Your task to perform on an android device: Is it going to rain tomorrow? Image 0: 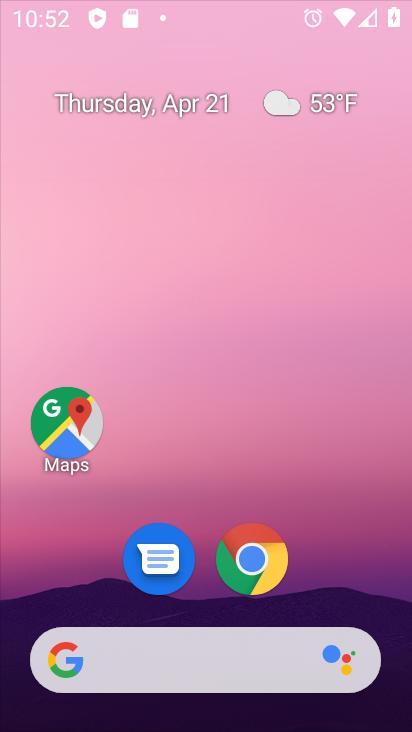
Step 0: drag from (261, 689) to (204, 112)
Your task to perform on an android device: Is it going to rain tomorrow? Image 1: 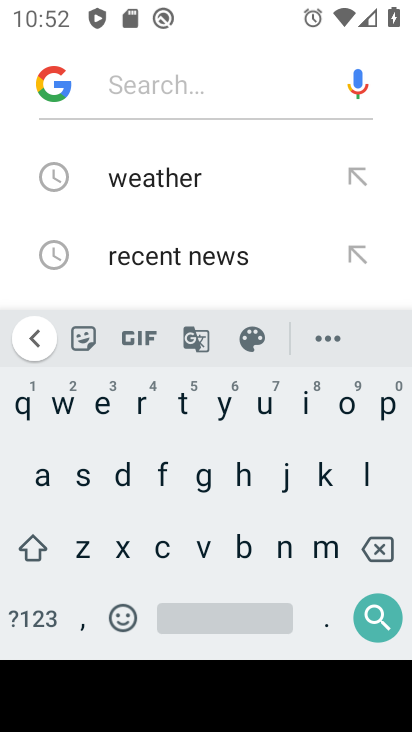
Step 1: press back button
Your task to perform on an android device: Is it going to rain tomorrow? Image 2: 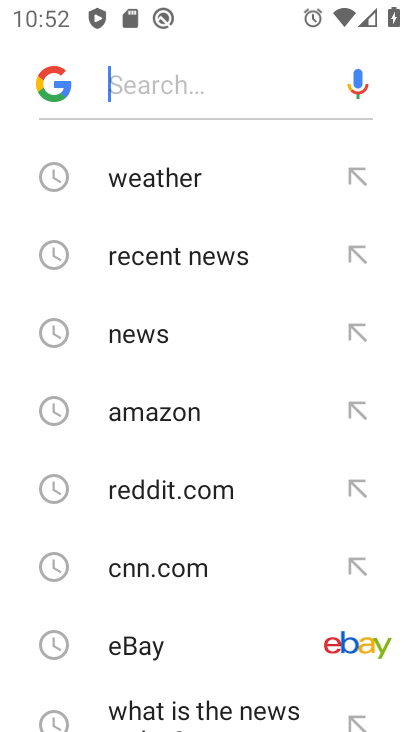
Step 2: press back button
Your task to perform on an android device: Is it going to rain tomorrow? Image 3: 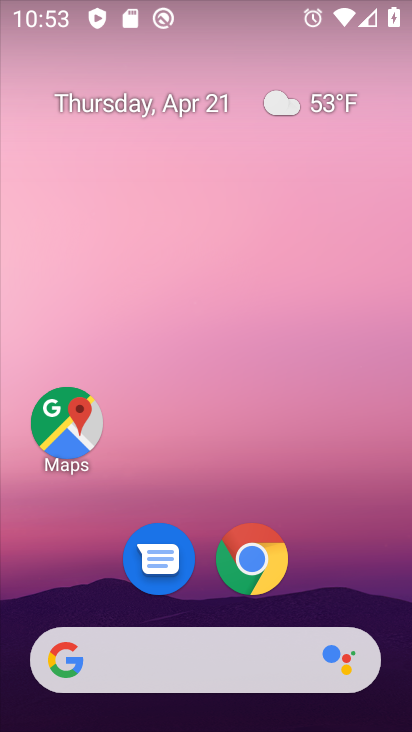
Step 3: drag from (233, 222) to (249, 119)
Your task to perform on an android device: Is it going to rain tomorrow? Image 4: 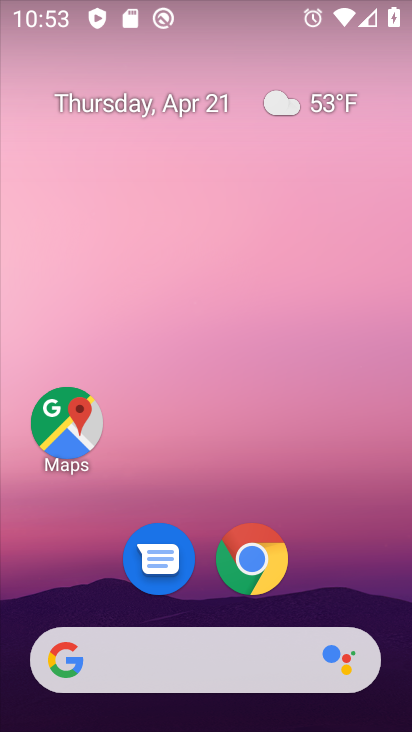
Step 4: drag from (252, 696) to (237, 179)
Your task to perform on an android device: Is it going to rain tomorrow? Image 5: 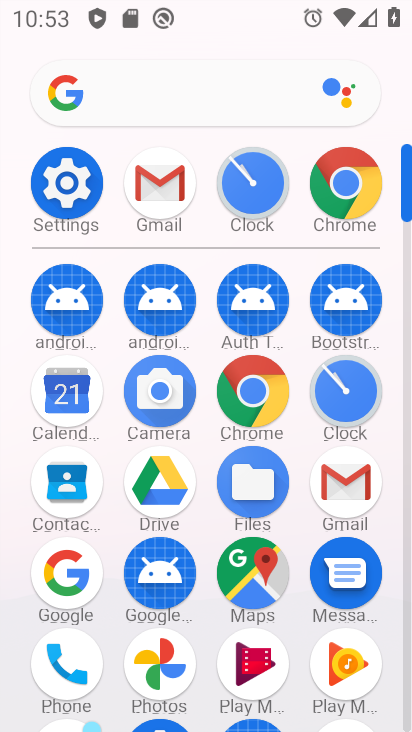
Step 5: click (147, 93)
Your task to perform on an android device: Is it going to rain tomorrow? Image 6: 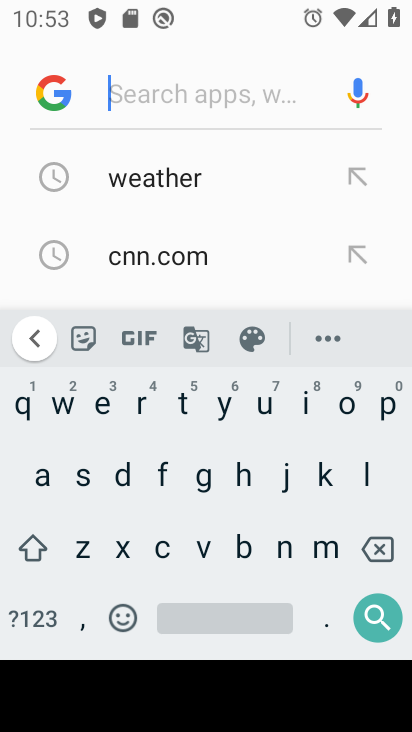
Step 6: click (135, 180)
Your task to perform on an android device: Is it going to rain tomorrow? Image 7: 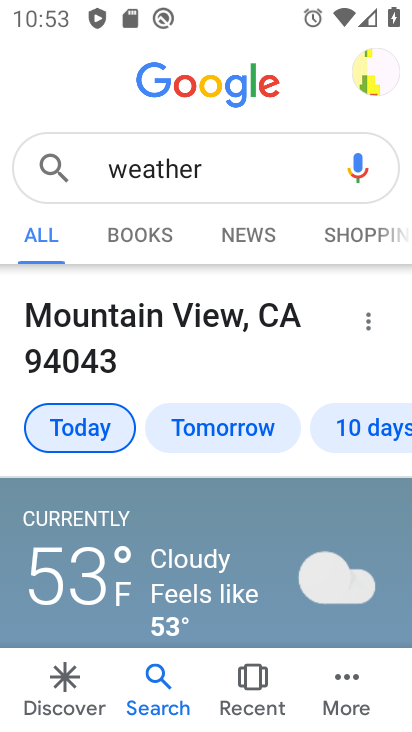
Step 7: click (210, 421)
Your task to perform on an android device: Is it going to rain tomorrow? Image 8: 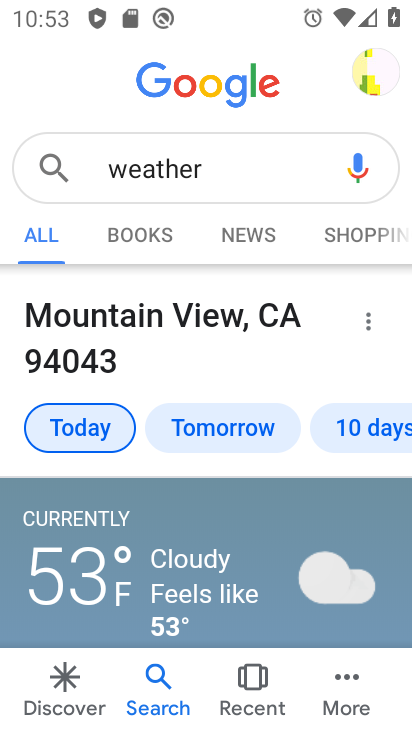
Step 8: click (210, 421)
Your task to perform on an android device: Is it going to rain tomorrow? Image 9: 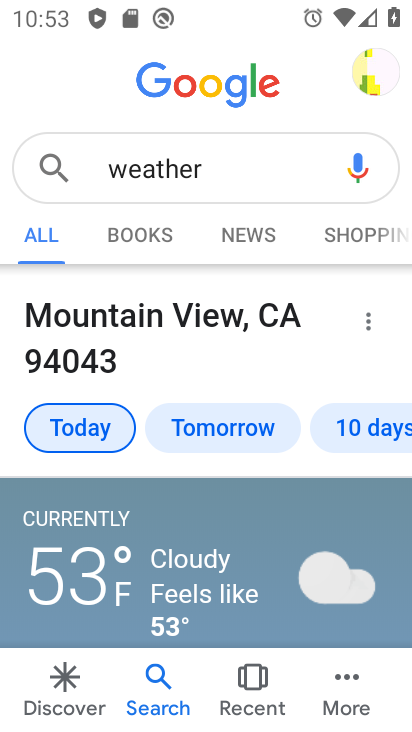
Step 9: click (193, 433)
Your task to perform on an android device: Is it going to rain tomorrow? Image 10: 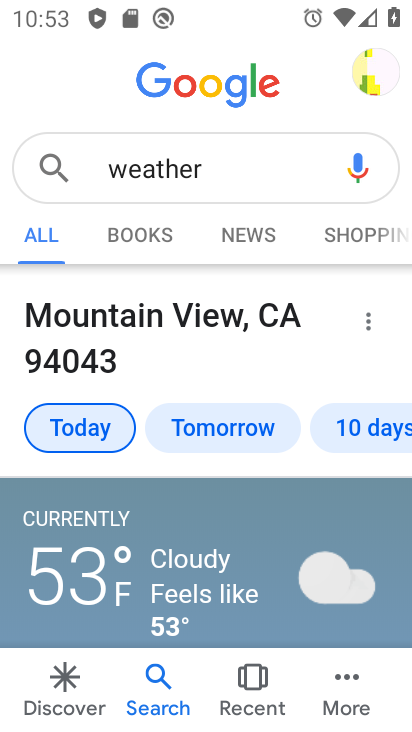
Step 10: click (193, 433)
Your task to perform on an android device: Is it going to rain tomorrow? Image 11: 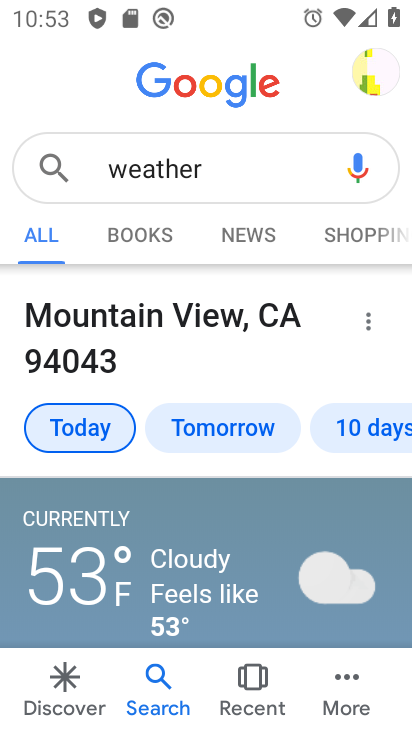
Step 11: click (193, 433)
Your task to perform on an android device: Is it going to rain tomorrow? Image 12: 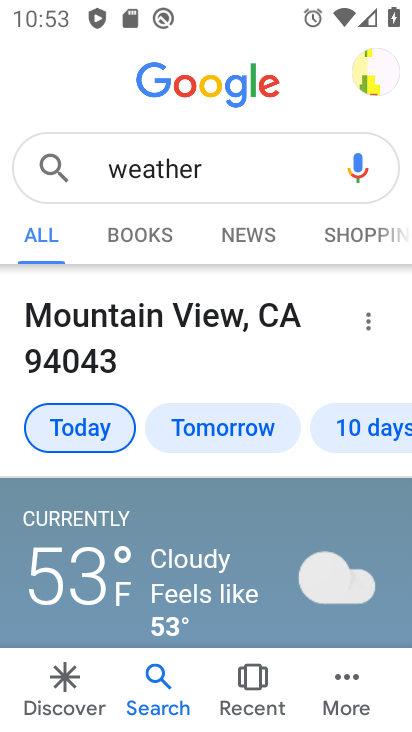
Step 12: click (193, 433)
Your task to perform on an android device: Is it going to rain tomorrow? Image 13: 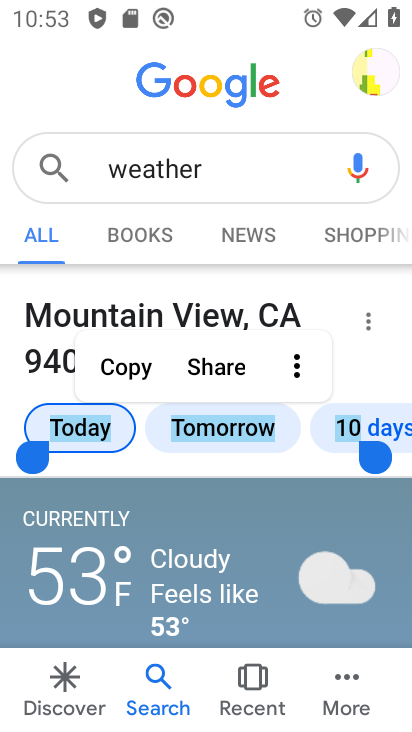
Step 13: task complete